Your task to perform on an android device: change notifications settings Image 0: 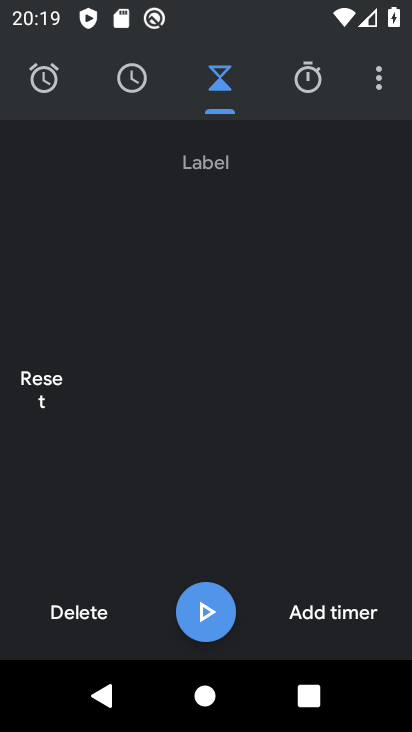
Step 0: press home button
Your task to perform on an android device: change notifications settings Image 1: 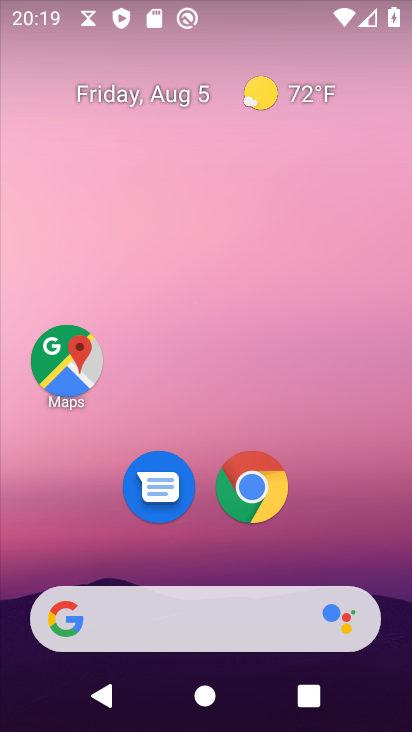
Step 1: drag from (203, 589) to (344, 71)
Your task to perform on an android device: change notifications settings Image 2: 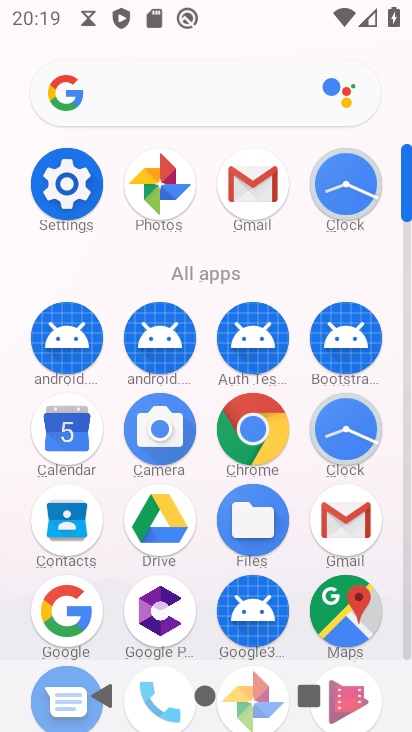
Step 2: click (63, 191)
Your task to perform on an android device: change notifications settings Image 3: 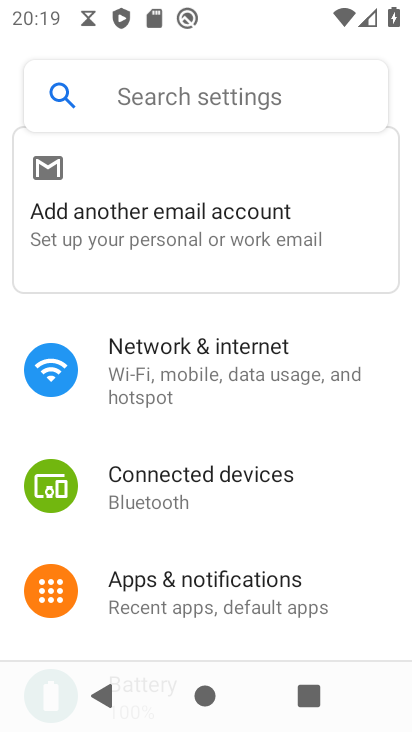
Step 3: click (226, 589)
Your task to perform on an android device: change notifications settings Image 4: 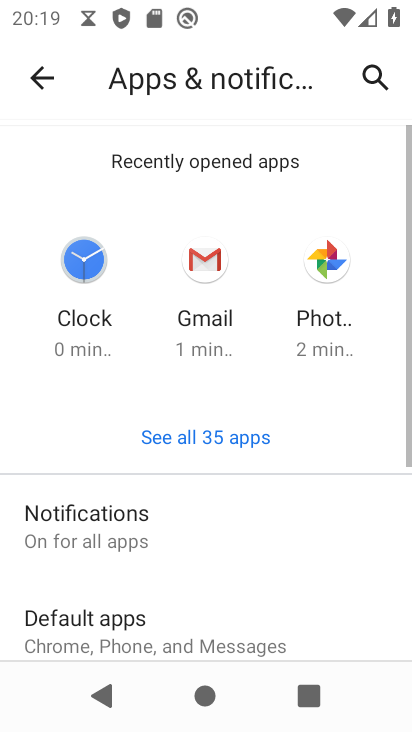
Step 4: click (88, 525)
Your task to perform on an android device: change notifications settings Image 5: 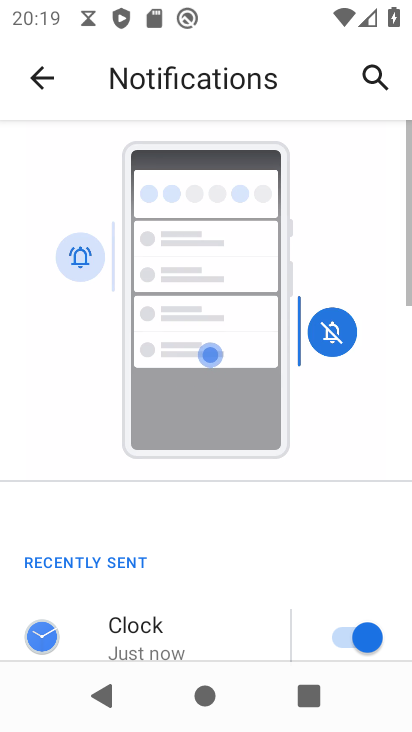
Step 5: drag from (269, 577) to (394, 79)
Your task to perform on an android device: change notifications settings Image 6: 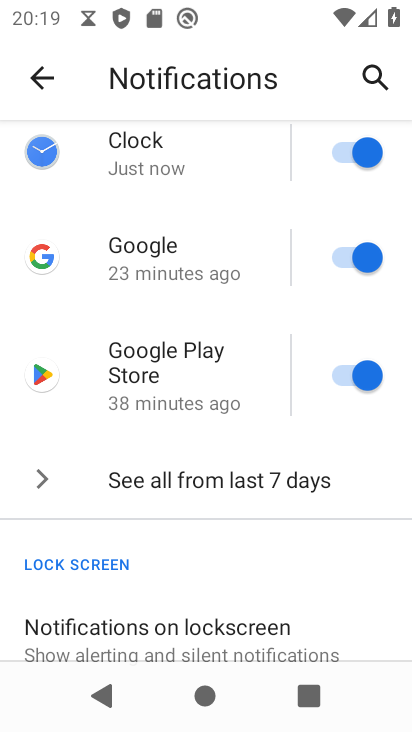
Step 6: click (344, 261)
Your task to perform on an android device: change notifications settings Image 7: 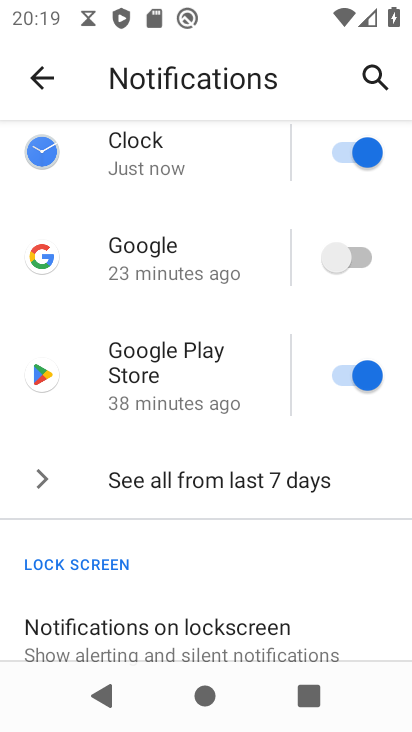
Step 7: task complete